Your task to perform on an android device: Turn on the flashlight Image 0: 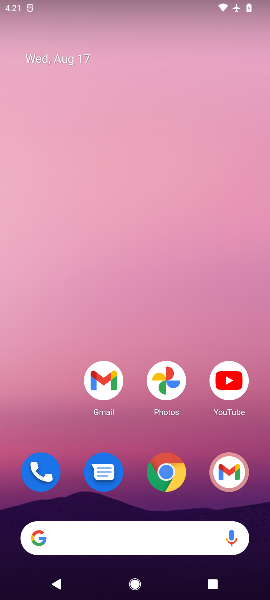
Step 0: drag from (130, 503) to (206, 140)
Your task to perform on an android device: Turn on the flashlight Image 1: 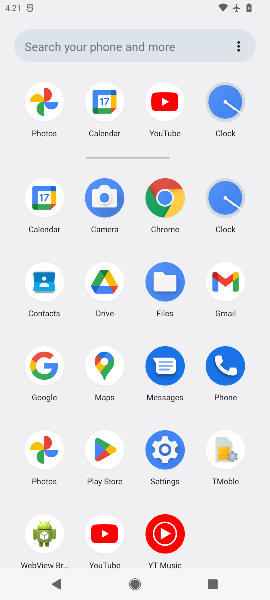
Step 1: click (167, 455)
Your task to perform on an android device: Turn on the flashlight Image 2: 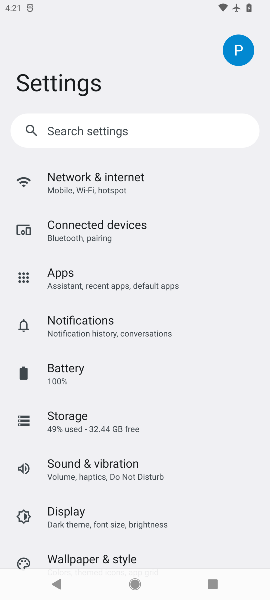
Step 2: click (140, 131)
Your task to perform on an android device: Turn on the flashlight Image 3: 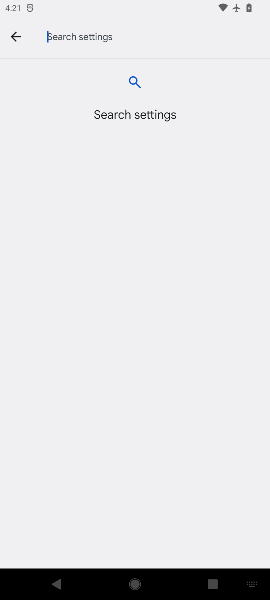
Step 3: type "flashlight"
Your task to perform on an android device: Turn on the flashlight Image 4: 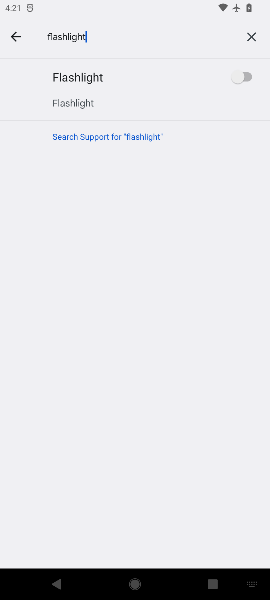
Step 4: click (252, 75)
Your task to perform on an android device: Turn on the flashlight Image 5: 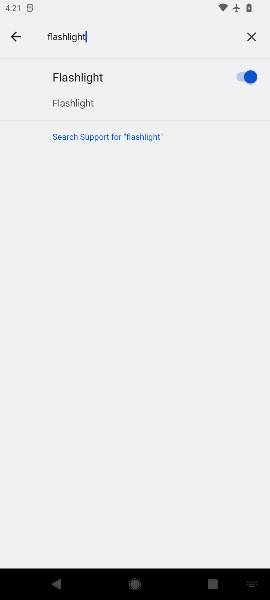
Step 5: task complete